Your task to perform on an android device: check android version Image 0: 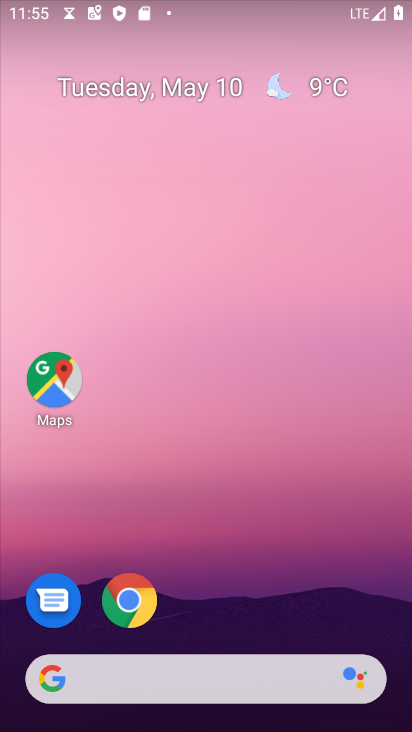
Step 0: drag from (274, 568) to (270, 64)
Your task to perform on an android device: check android version Image 1: 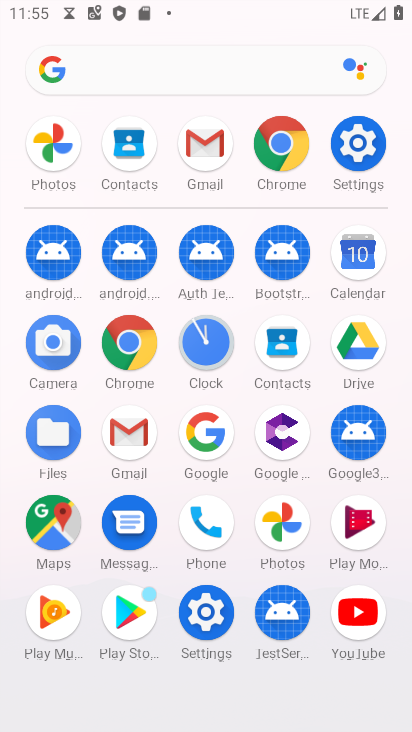
Step 1: click (204, 610)
Your task to perform on an android device: check android version Image 2: 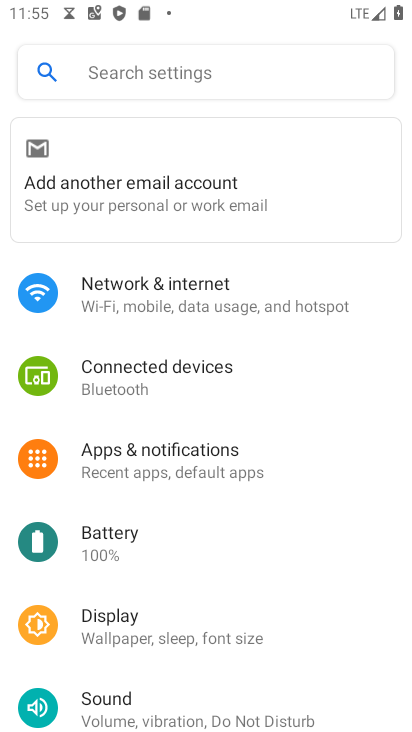
Step 2: drag from (196, 605) to (245, 157)
Your task to perform on an android device: check android version Image 3: 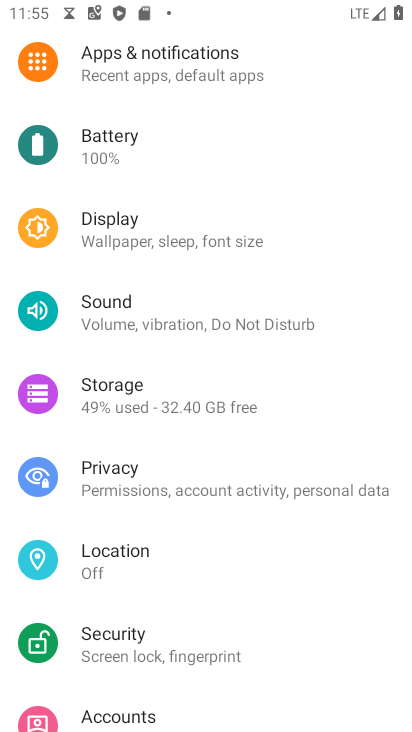
Step 3: drag from (232, 506) to (253, 217)
Your task to perform on an android device: check android version Image 4: 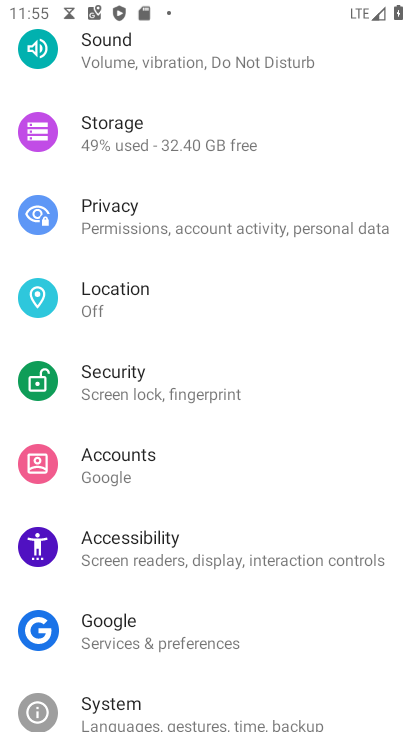
Step 4: drag from (216, 634) to (240, 276)
Your task to perform on an android device: check android version Image 5: 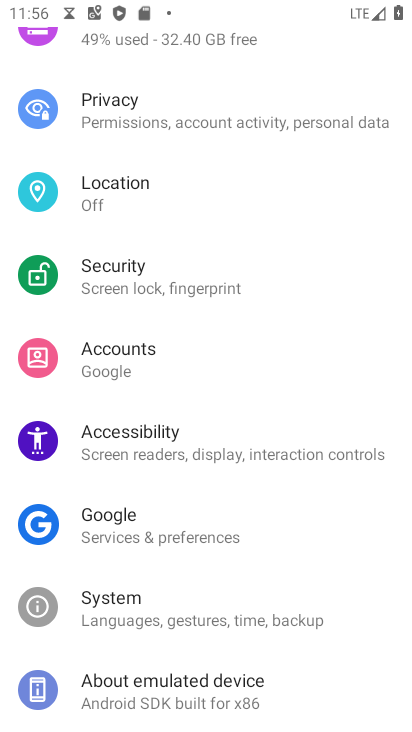
Step 5: click (178, 686)
Your task to perform on an android device: check android version Image 6: 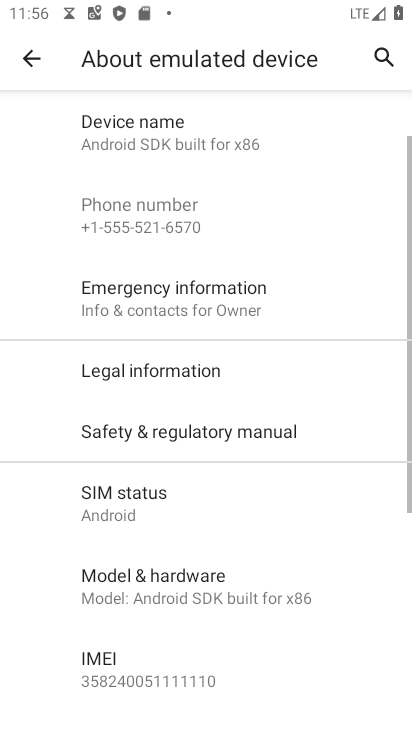
Step 6: drag from (208, 562) to (226, 227)
Your task to perform on an android device: check android version Image 7: 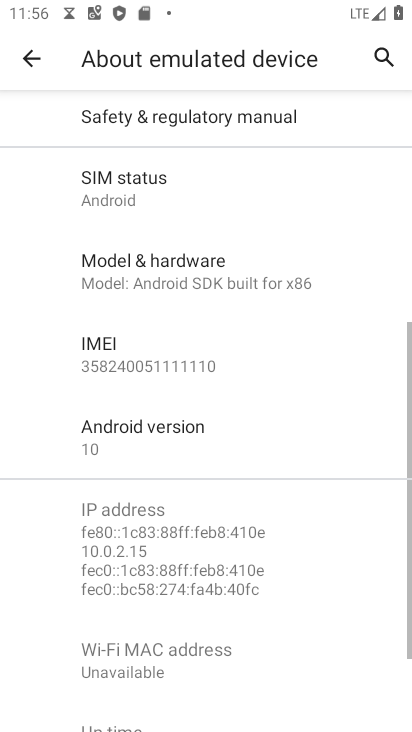
Step 7: drag from (163, 549) to (166, 448)
Your task to perform on an android device: check android version Image 8: 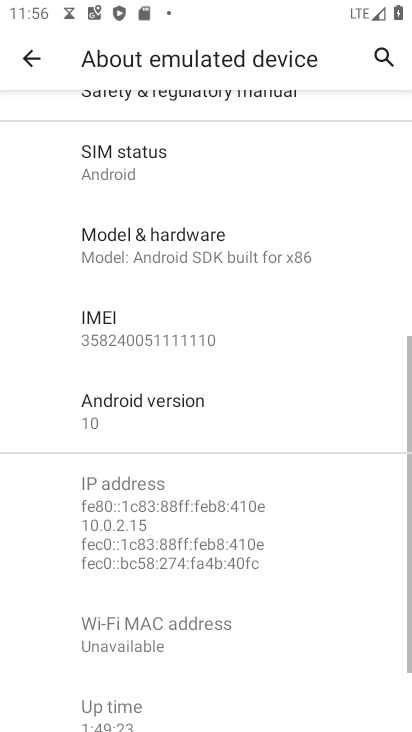
Step 8: click (166, 437)
Your task to perform on an android device: check android version Image 9: 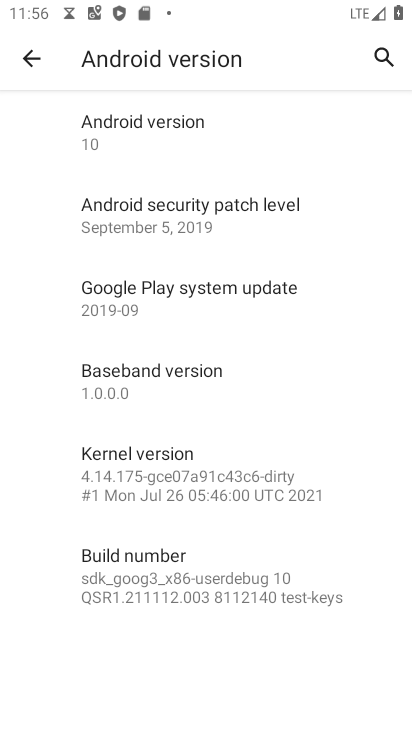
Step 9: task complete